Your task to perform on an android device: turn off data saver in the chrome app Image 0: 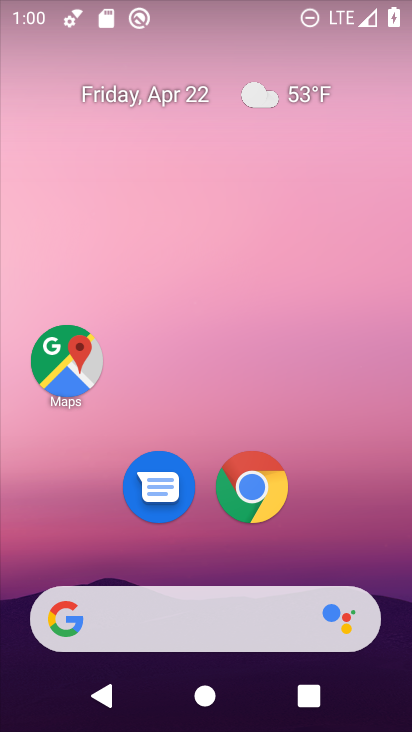
Step 0: click (253, 501)
Your task to perform on an android device: turn off data saver in the chrome app Image 1: 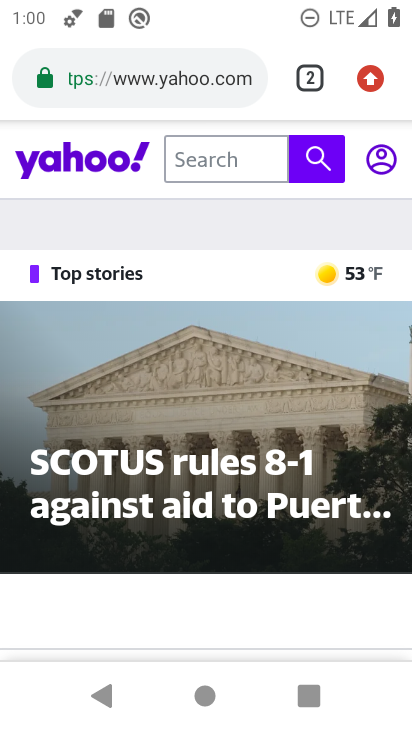
Step 1: press home button
Your task to perform on an android device: turn off data saver in the chrome app Image 2: 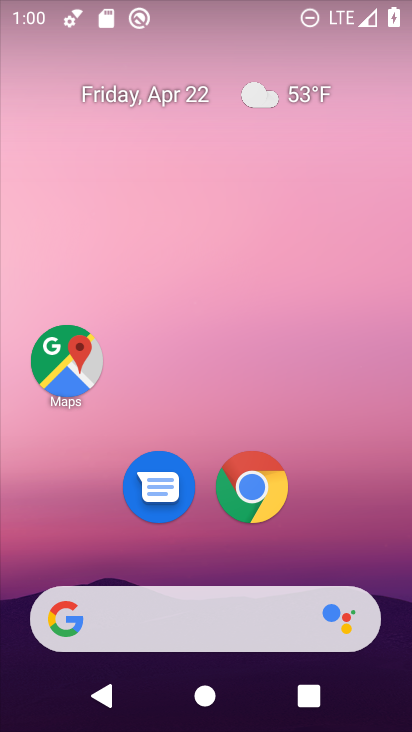
Step 2: click (253, 479)
Your task to perform on an android device: turn off data saver in the chrome app Image 3: 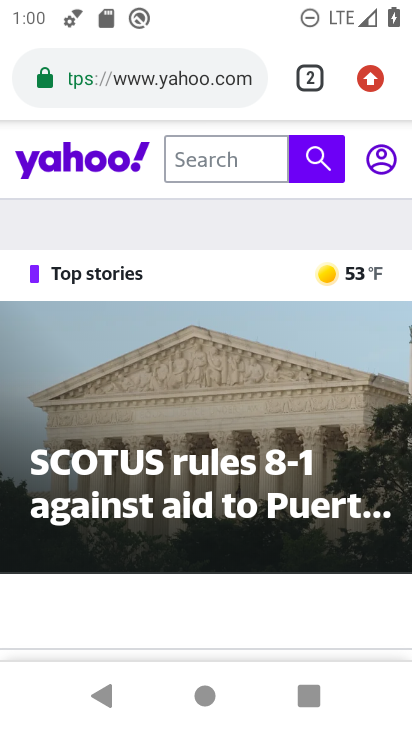
Step 3: click (362, 87)
Your task to perform on an android device: turn off data saver in the chrome app Image 4: 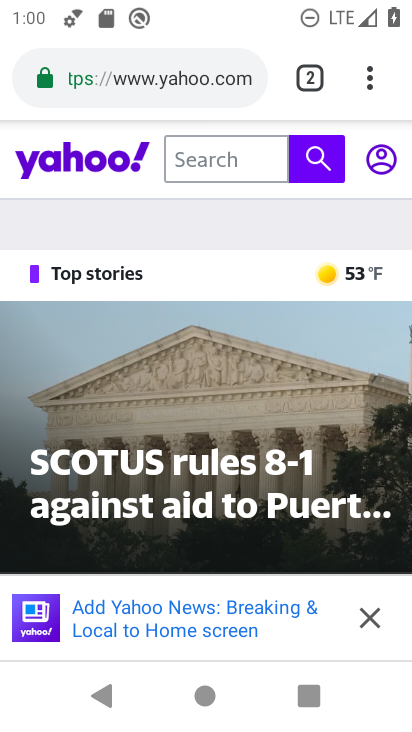
Step 4: click (372, 86)
Your task to perform on an android device: turn off data saver in the chrome app Image 5: 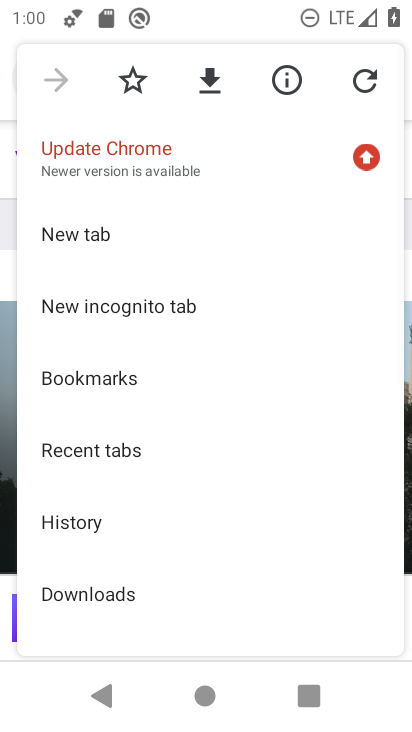
Step 5: drag from (100, 581) to (135, 88)
Your task to perform on an android device: turn off data saver in the chrome app Image 6: 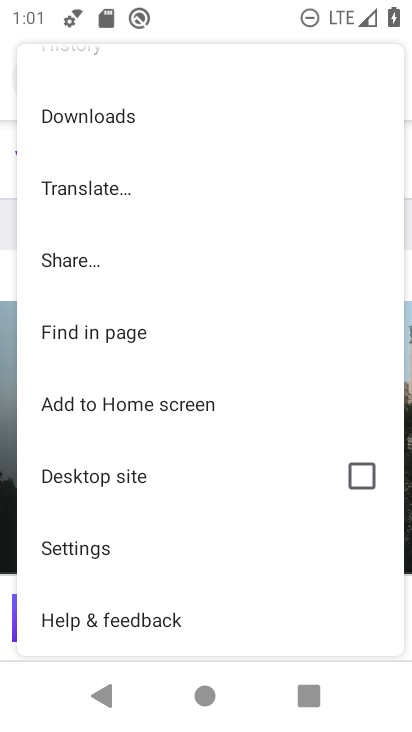
Step 6: click (166, 534)
Your task to perform on an android device: turn off data saver in the chrome app Image 7: 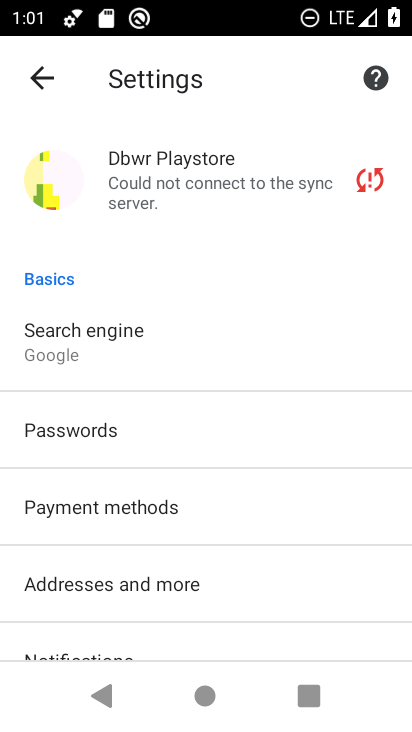
Step 7: drag from (204, 26) to (270, 603)
Your task to perform on an android device: turn off data saver in the chrome app Image 8: 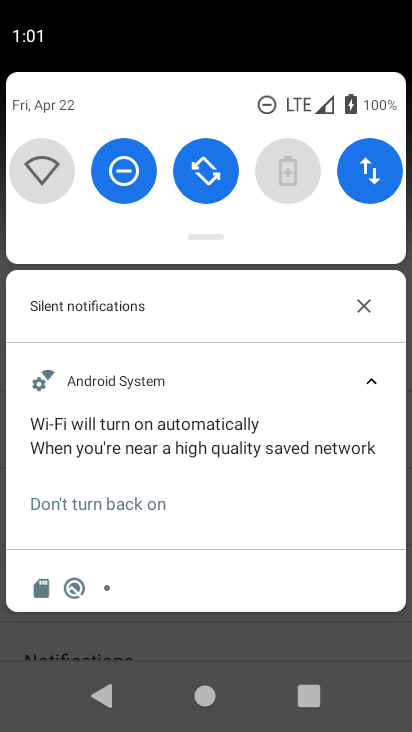
Step 8: click (229, 643)
Your task to perform on an android device: turn off data saver in the chrome app Image 9: 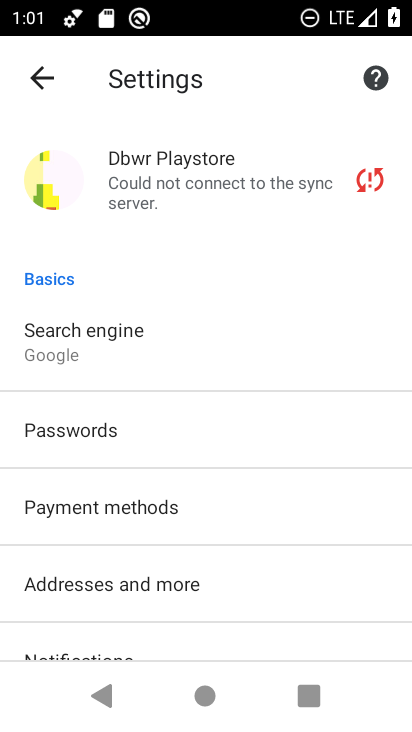
Step 9: press home button
Your task to perform on an android device: turn off data saver in the chrome app Image 10: 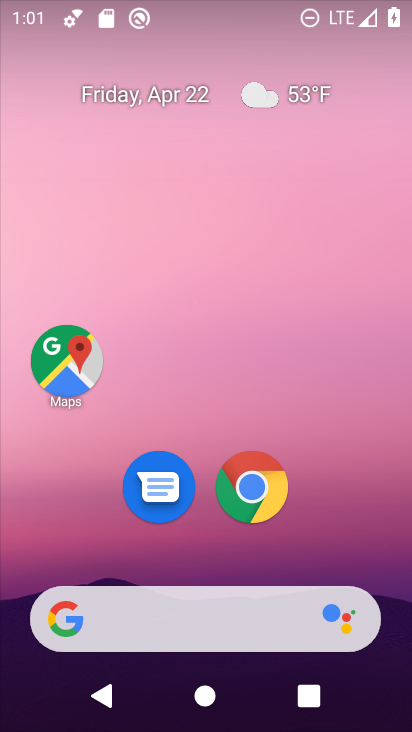
Step 10: click (261, 491)
Your task to perform on an android device: turn off data saver in the chrome app Image 11: 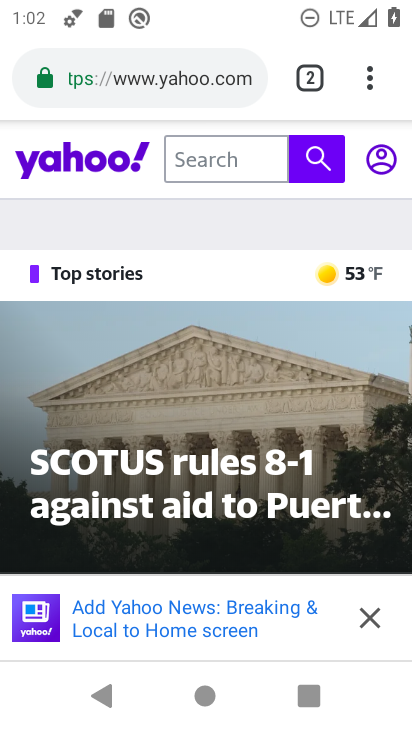
Step 11: click (372, 72)
Your task to perform on an android device: turn off data saver in the chrome app Image 12: 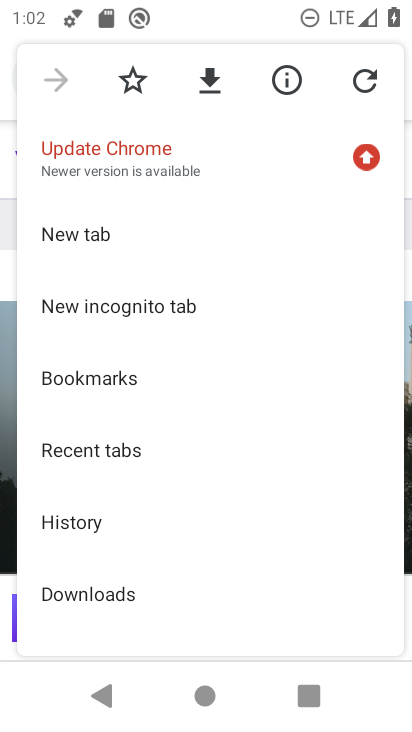
Step 12: drag from (147, 594) to (217, 197)
Your task to perform on an android device: turn off data saver in the chrome app Image 13: 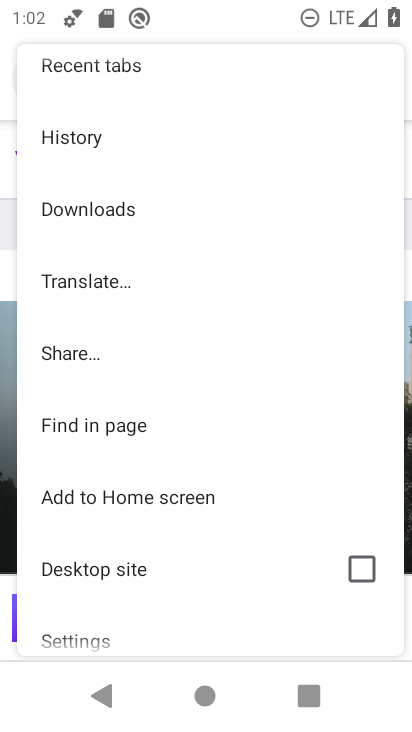
Step 13: click (70, 643)
Your task to perform on an android device: turn off data saver in the chrome app Image 14: 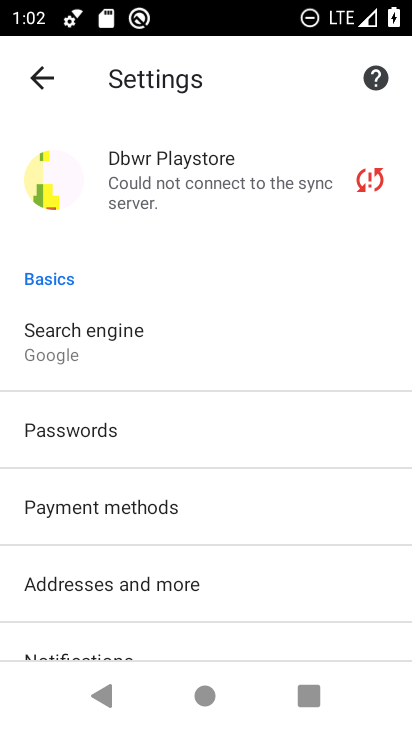
Step 14: drag from (166, 598) to (200, 72)
Your task to perform on an android device: turn off data saver in the chrome app Image 15: 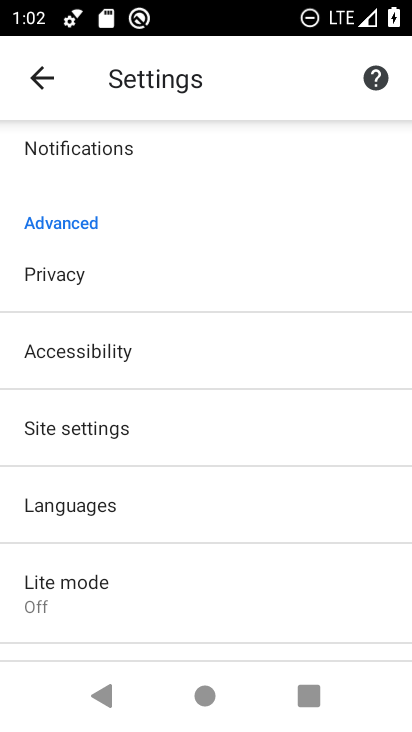
Step 15: drag from (124, 602) to (198, 272)
Your task to perform on an android device: turn off data saver in the chrome app Image 16: 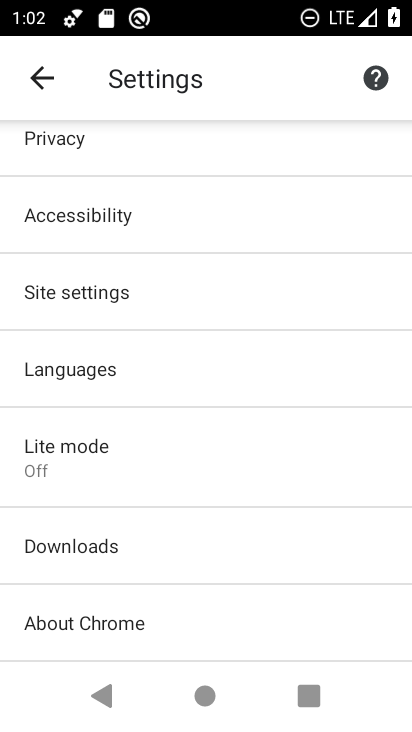
Step 16: click (104, 461)
Your task to perform on an android device: turn off data saver in the chrome app Image 17: 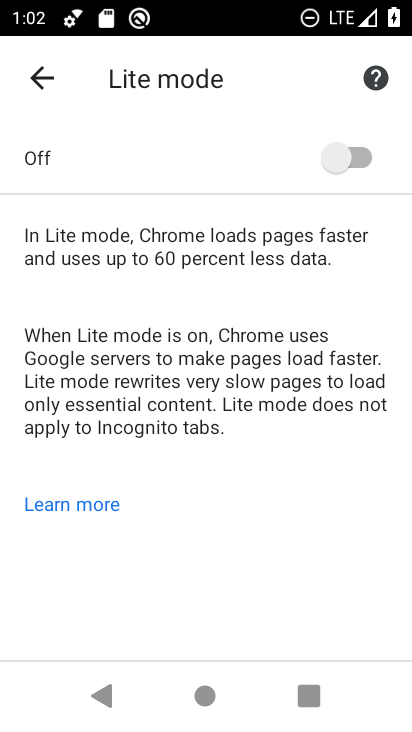
Step 17: task complete